Your task to perform on an android device: What's on my calendar today? Image 0: 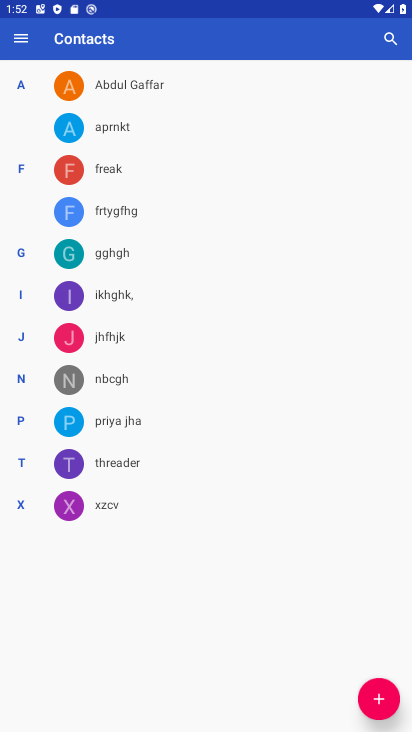
Step 0: press home button
Your task to perform on an android device: What's on my calendar today? Image 1: 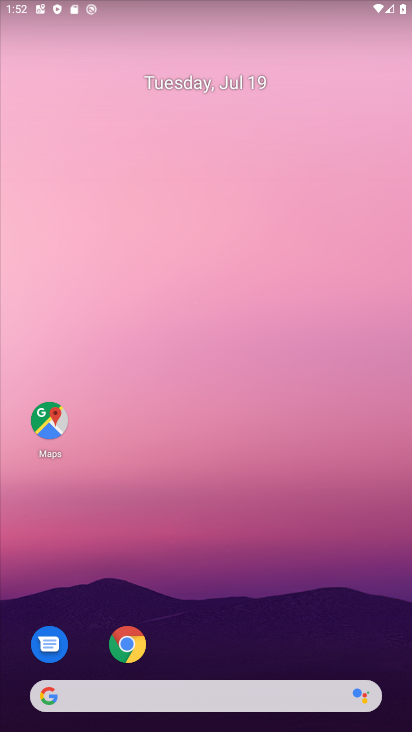
Step 1: drag from (277, 628) to (136, 169)
Your task to perform on an android device: What's on my calendar today? Image 2: 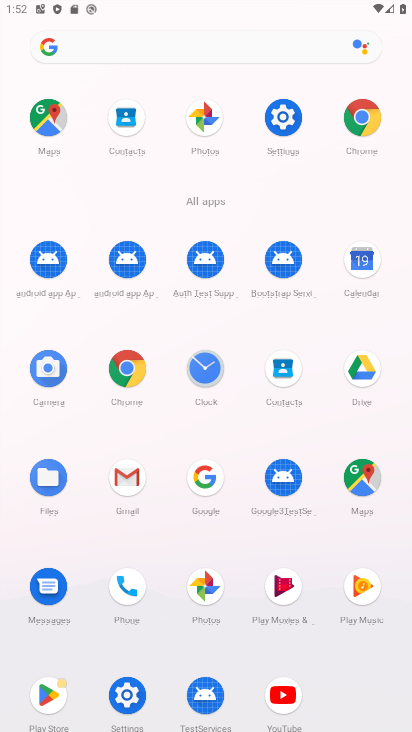
Step 2: click (369, 281)
Your task to perform on an android device: What's on my calendar today? Image 3: 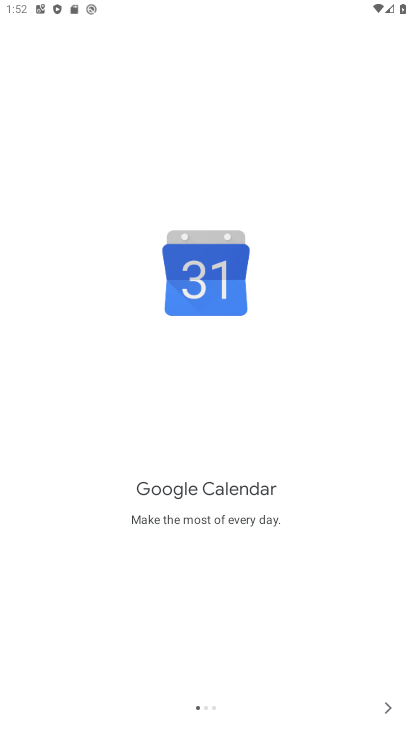
Step 3: click (396, 707)
Your task to perform on an android device: What's on my calendar today? Image 4: 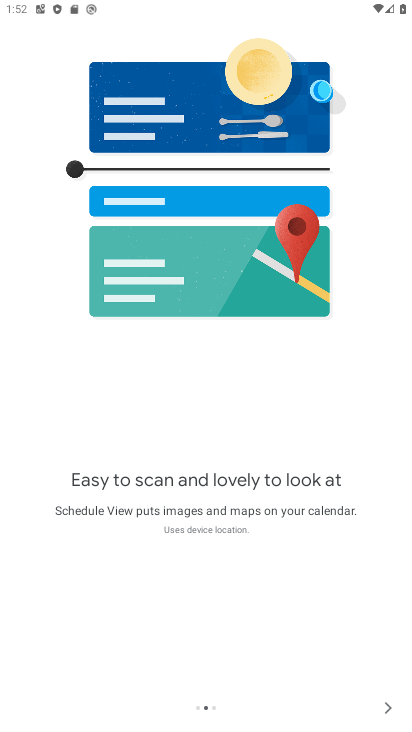
Step 4: click (396, 707)
Your task to perform on an android device: What's on my calendar today? Image 5: 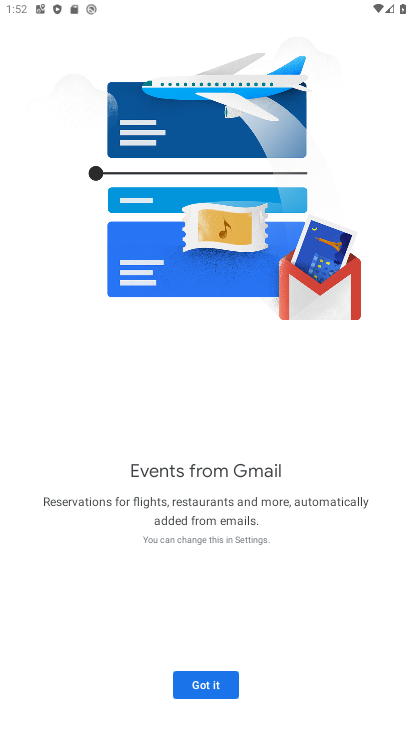
Step 5: click (396, 707)
Your task to perform on an android device: What's on my calendar today? Image 6: 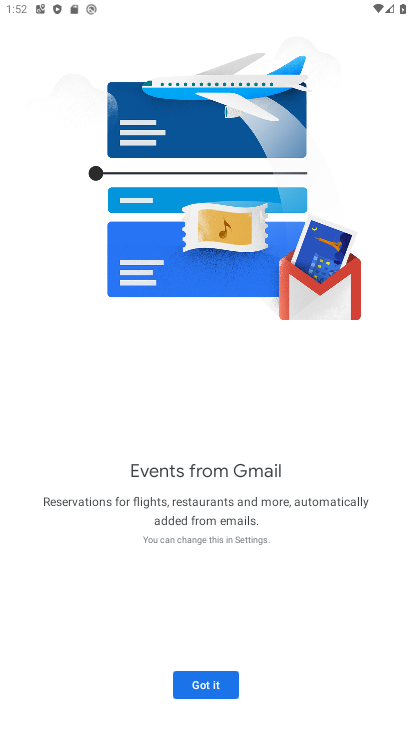
Step 6: click (197, 675)
Your task to perform on an android device: What's on my calendar today? Image 7: 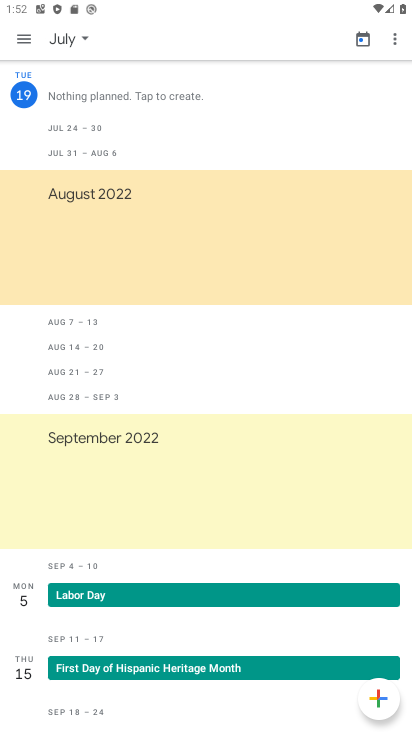
Step 7: task complete